Your task to perform on an android device: Open Google Chrome and click the shortcut for Amazon.com Image 0: 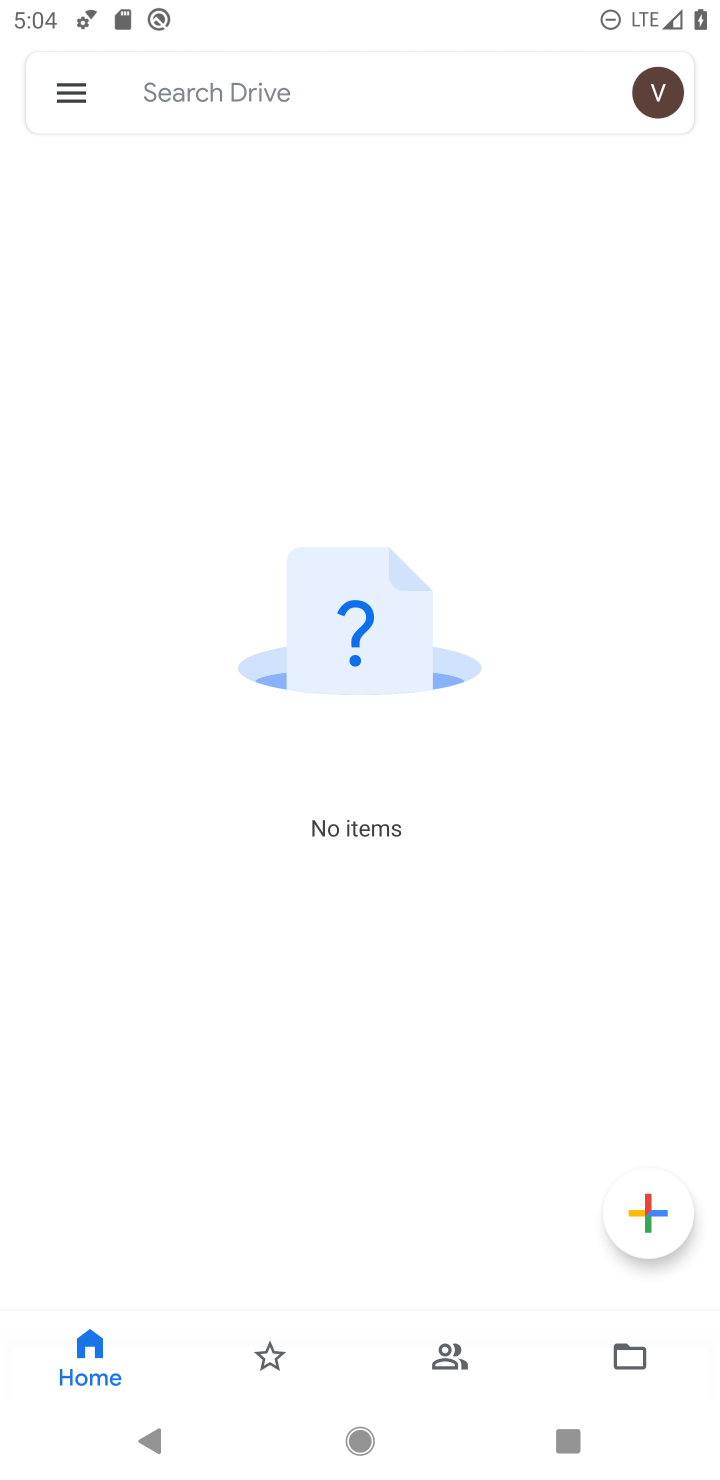
Step 0: press back button
Your task to perform on an android device: Open Google Chrome and click the shortcut for Amazon.com Image 1: 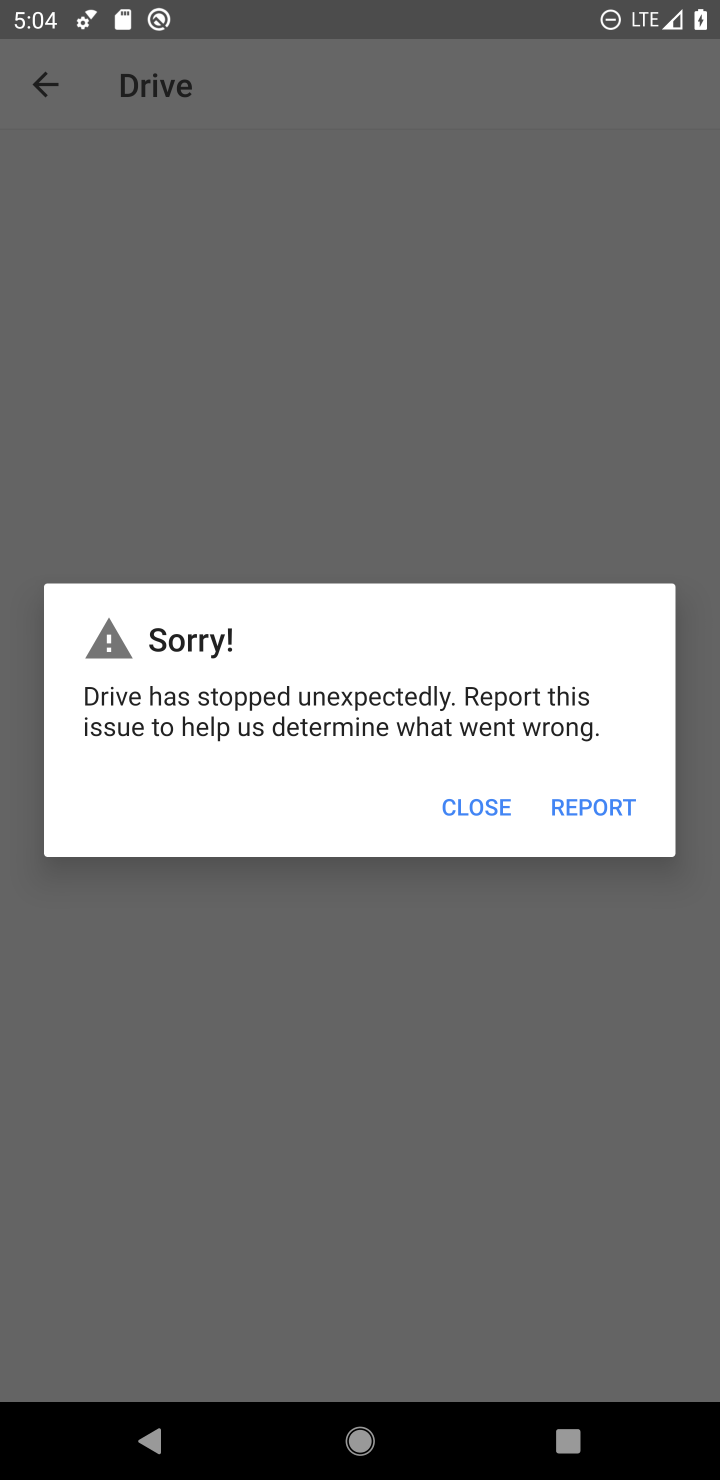
Step 1: press home button
Your task to perform on an android device: Open Google Chrome and click the shortcut for Amazon.com Image 2: 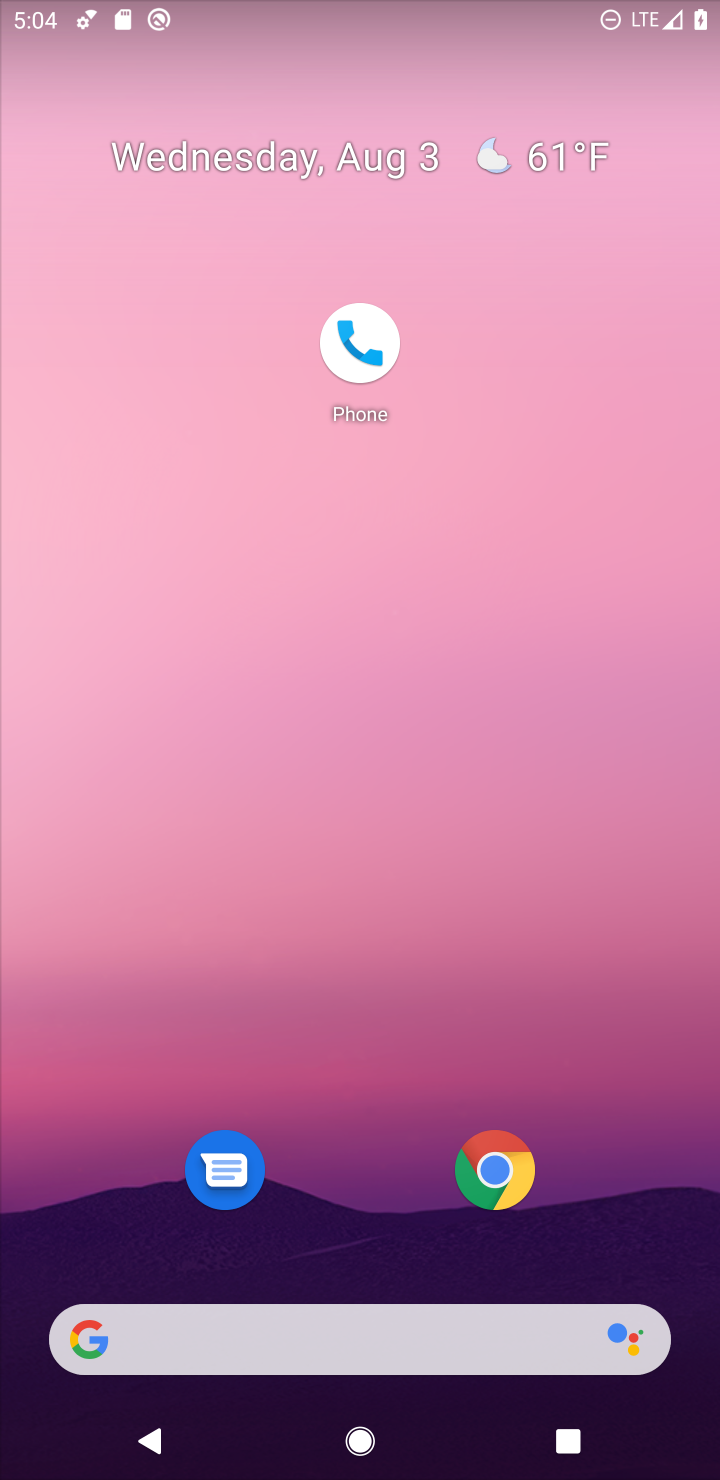
Step 2: click (497, 1172)
Your task to perform on an android device: Open Google Chrome and click the shortcut for Amazon.com Image 3: 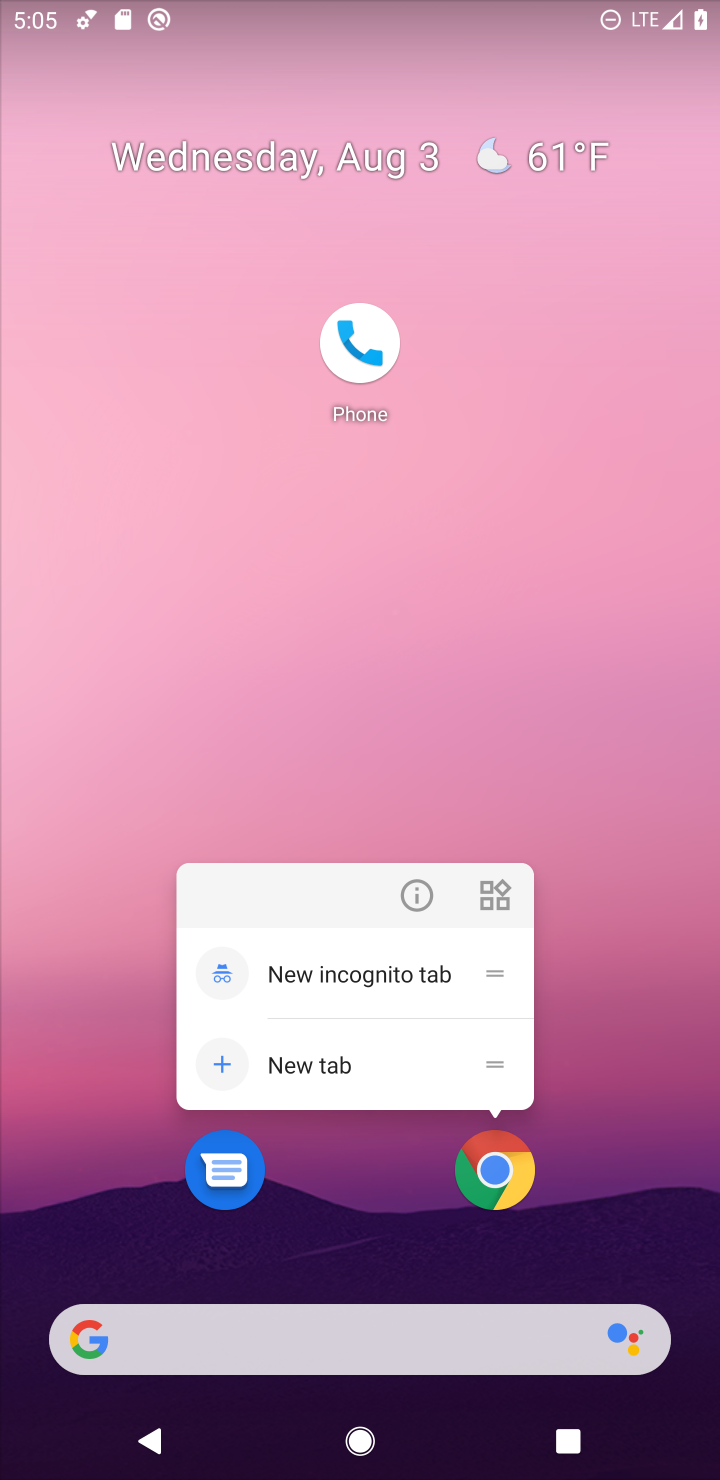
Step 3: click (497, 1172)
Your task to perform on an android device: Open Google Chrome and click the shortcut for Amazon.com Image 4: 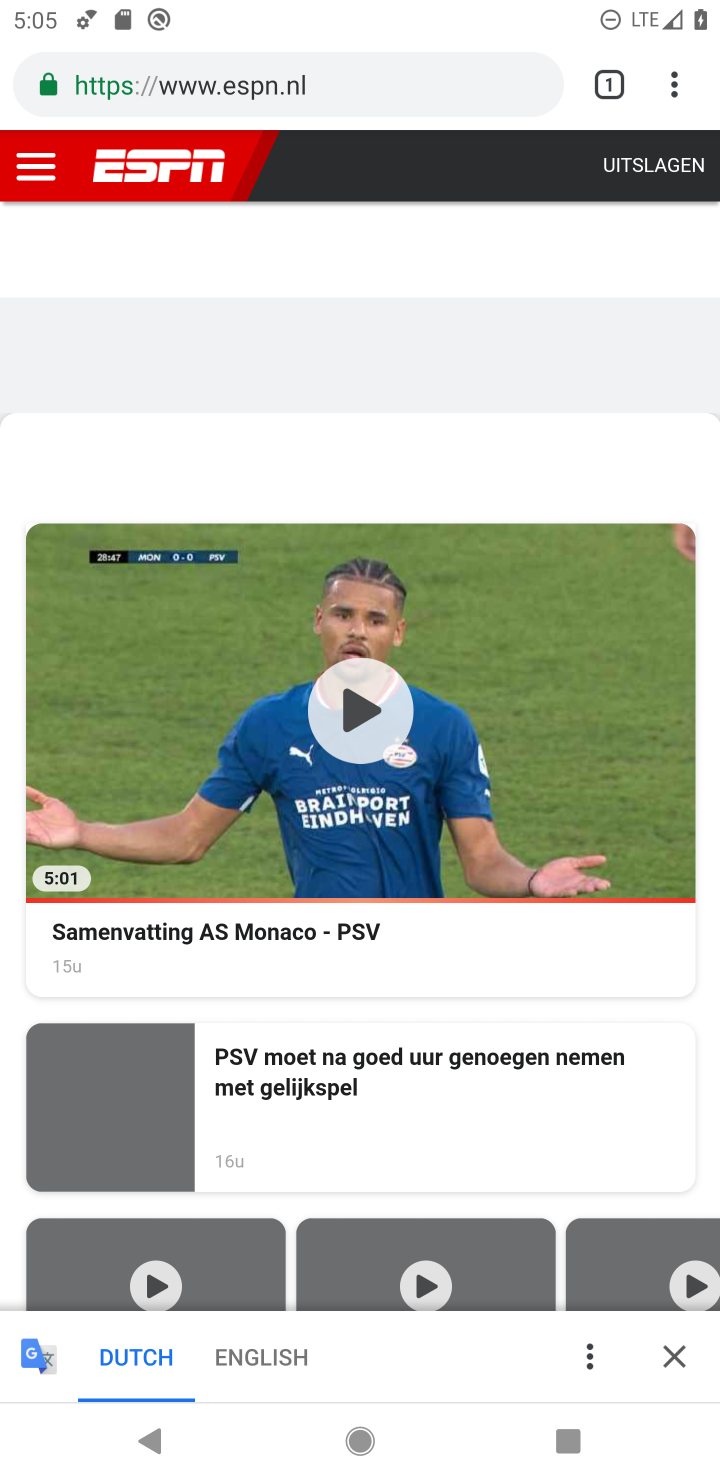
Step 4: press back button
Your task to perform on an android device: Open Google Chrome and click the shortcut for Amazon.com Image 5: 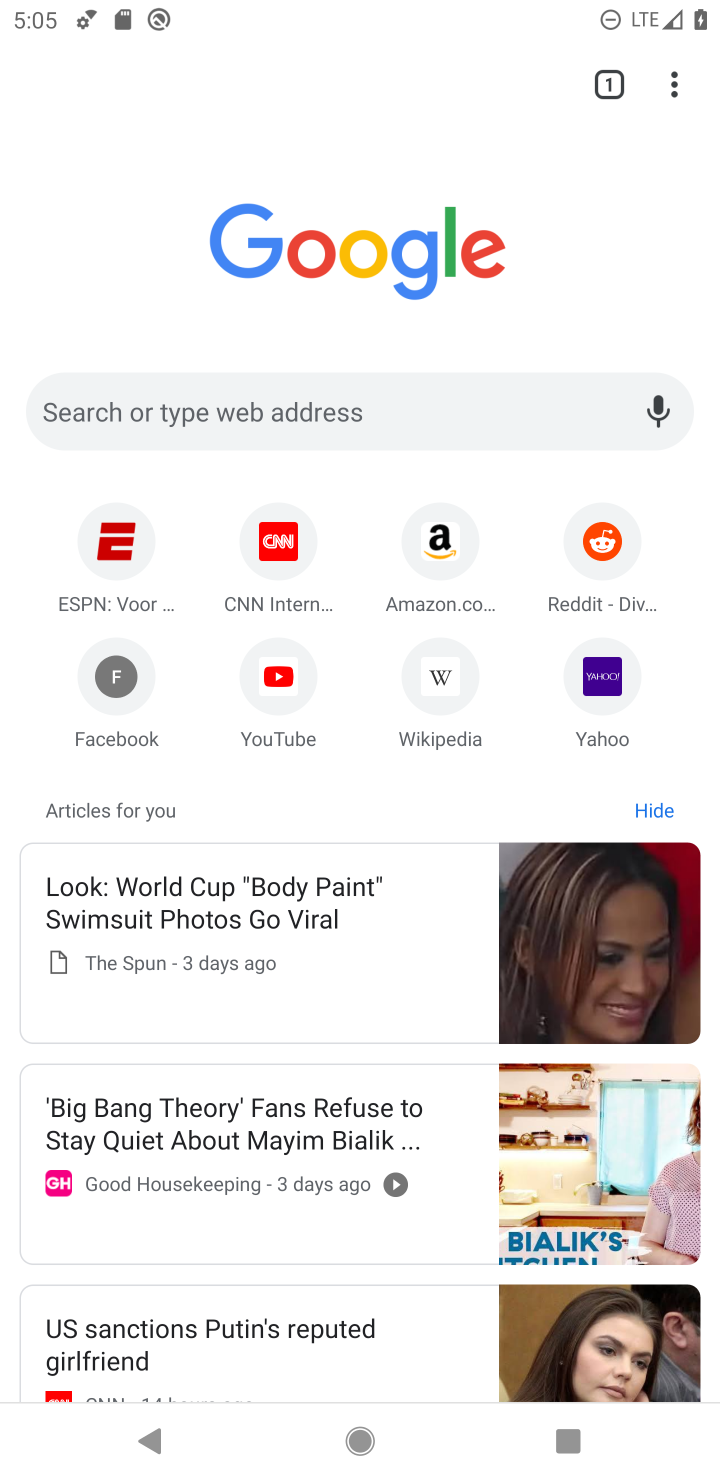
Step 5: click (426, 558)
Your task to perform on an android device: Open Google Chrome and click the shortcut for Amazon.com Image 6: 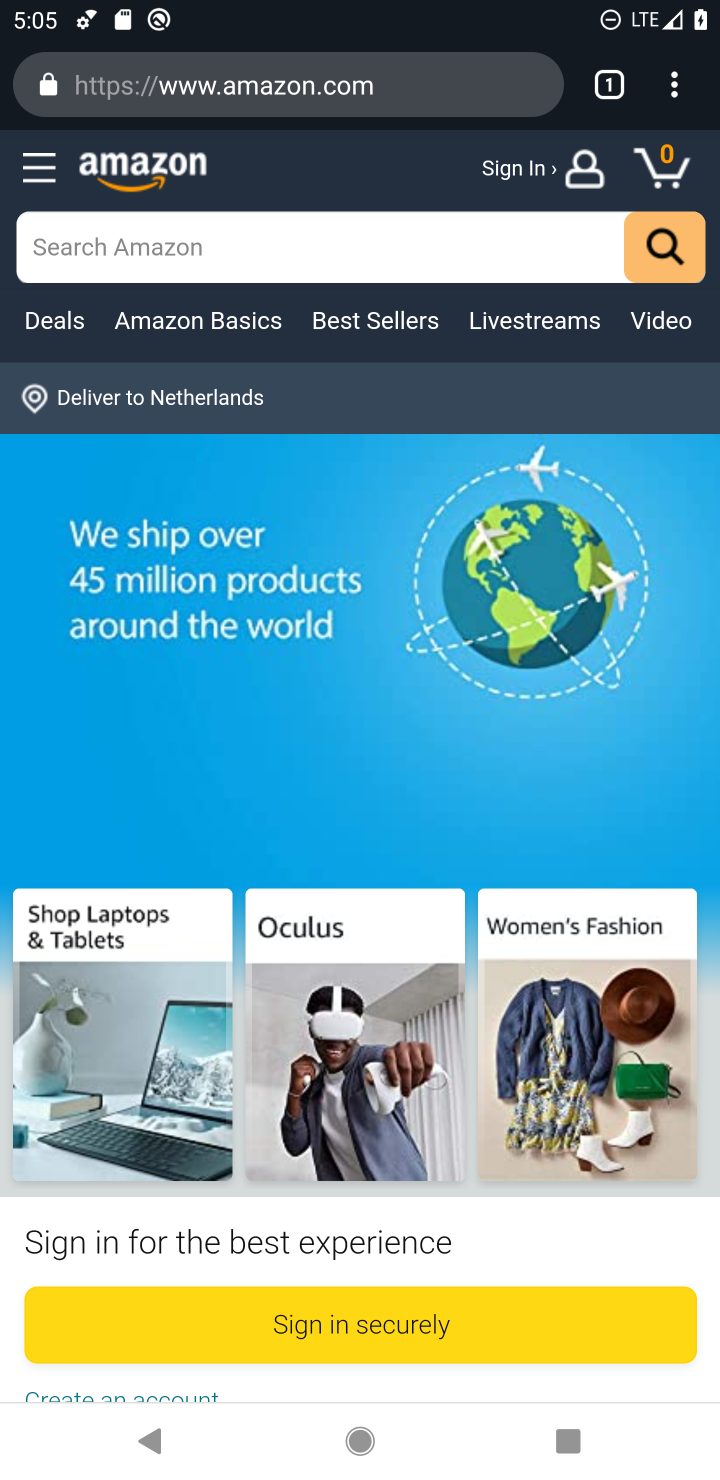
Step 6: task complete